Your task to perform on an android device: open app "Chime – Mobile Banking" Image 0: 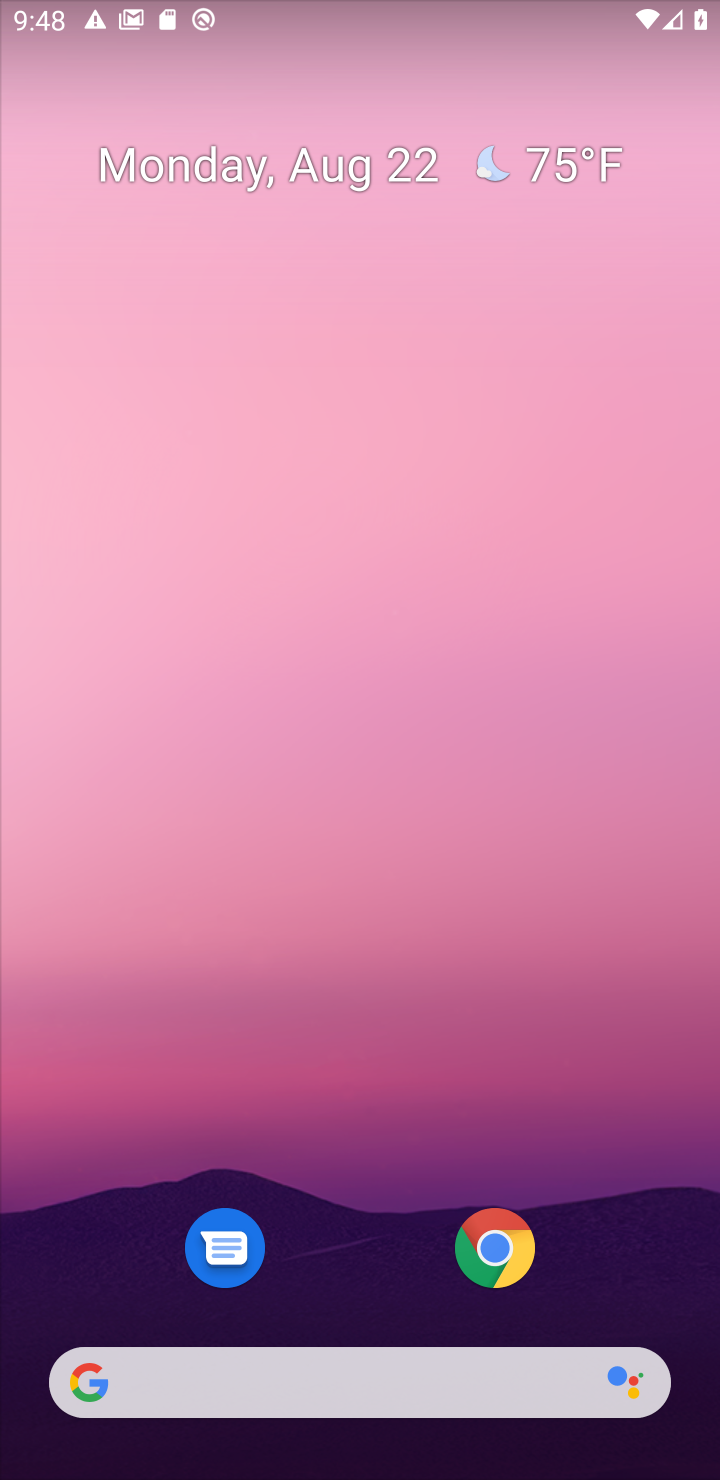
Step 0: drag from (350, 1232) to (337, 4)
Your task to perform on an android device: open app "Chime – Mobile Banking" Image 1: 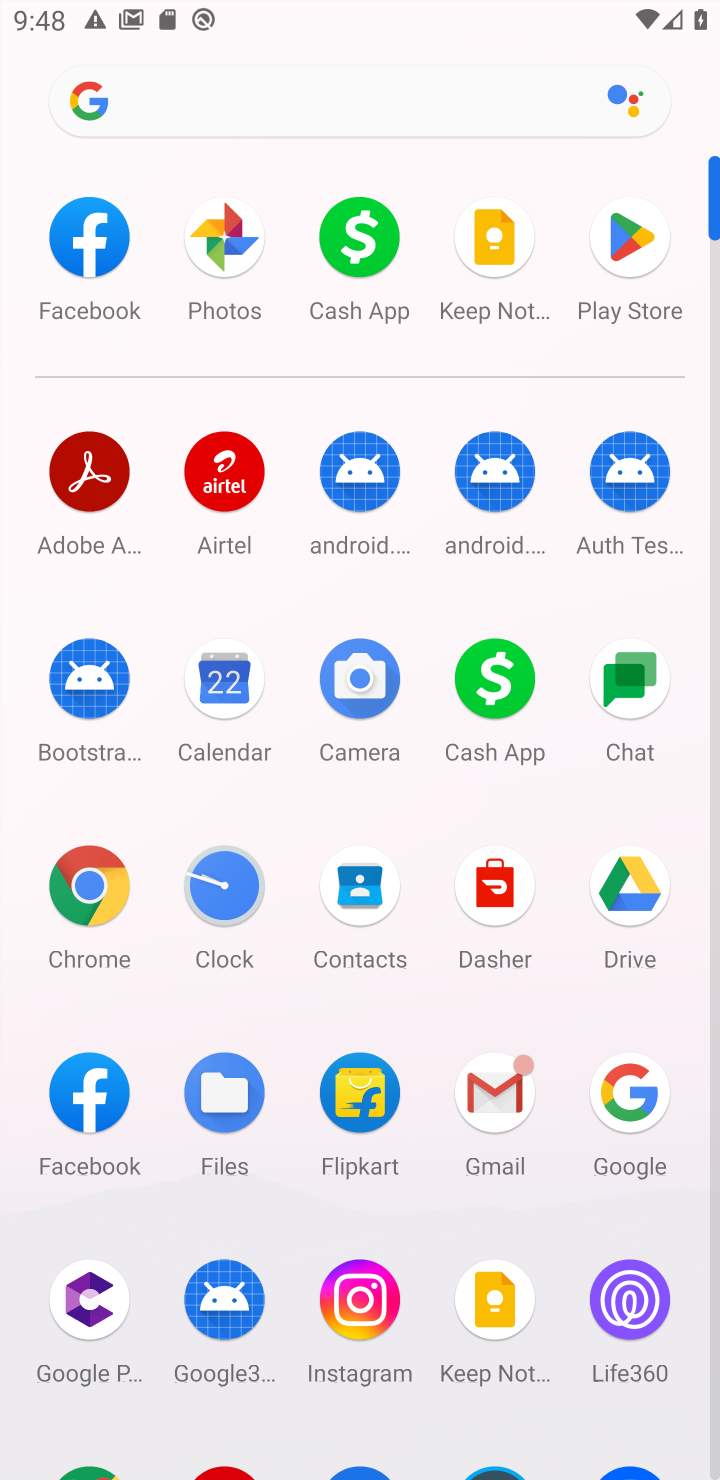
Step 1: click (633, 247)
Your task to perform on an android device: open app "Chime – Mobile Banking" Image 2: 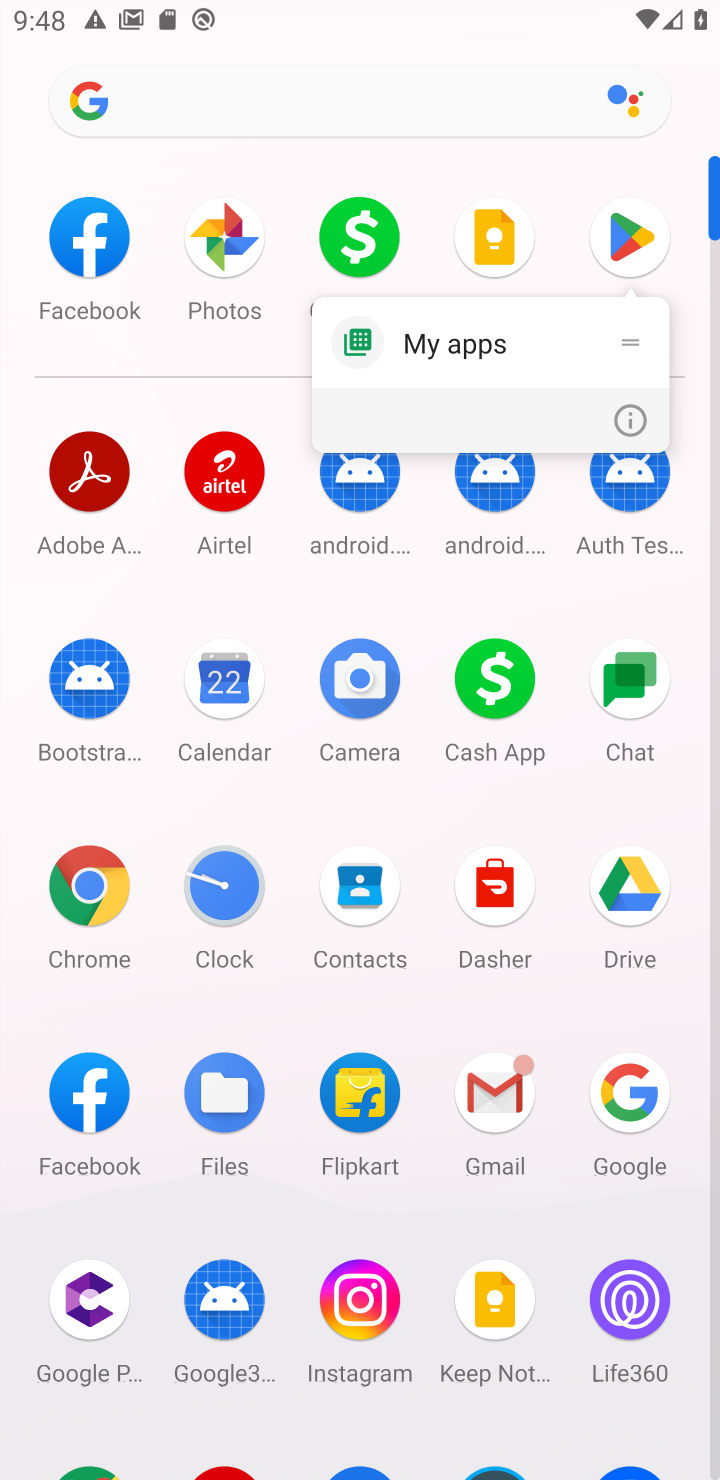
Step 2: click (624, 221)
Your task to perform on an android device: open app "Chime – Mobile Banking" Image 3: 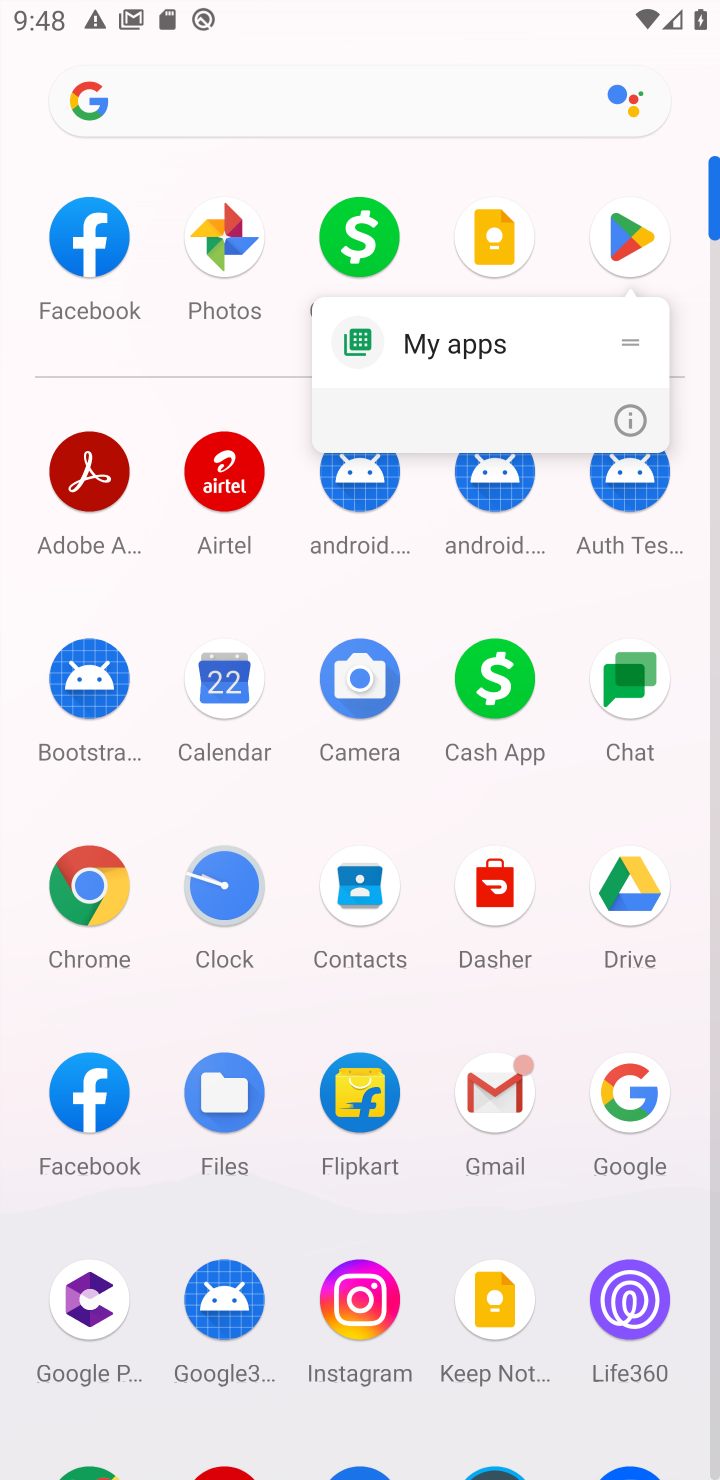
Step 3: click (624, 221)
Your task to perform on an android device: open app "Chime – Mobile Banking" Image 4: 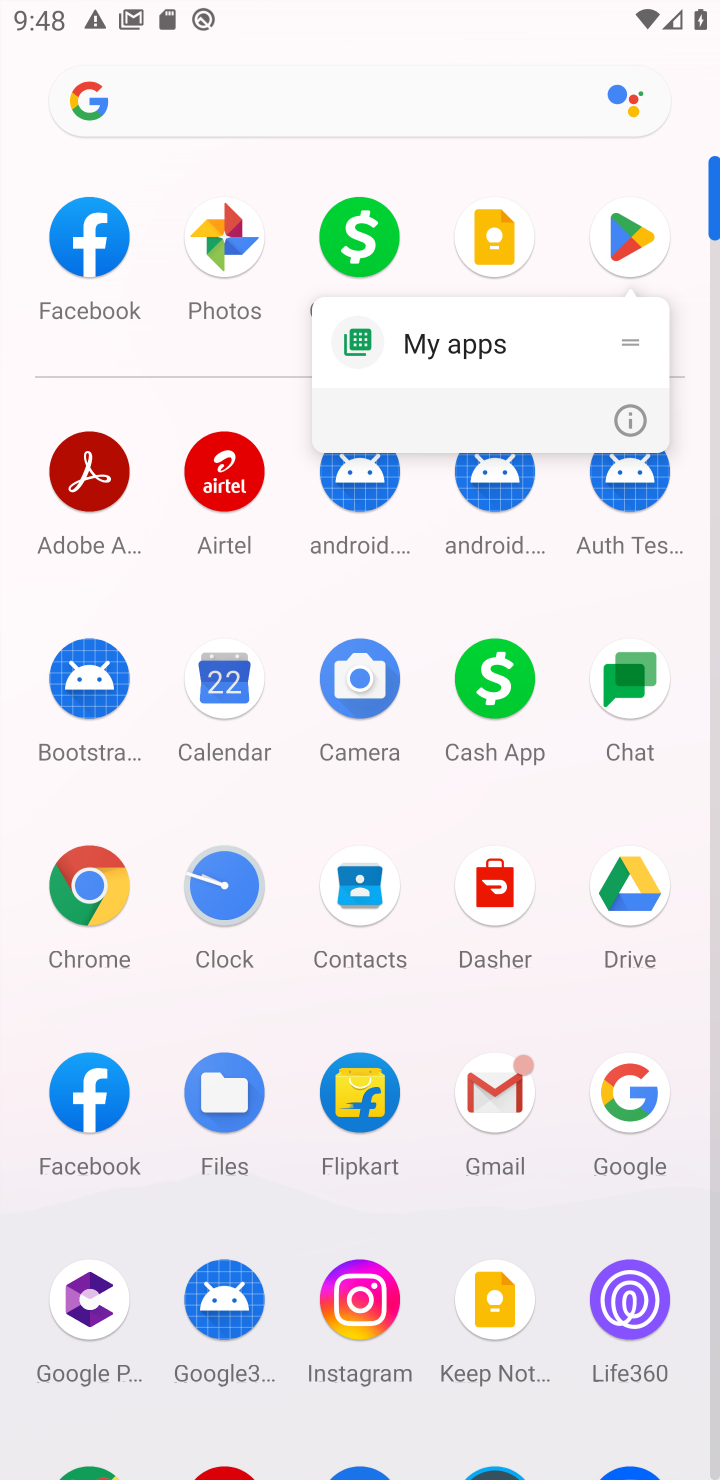
Step 4: click (622, 223)
Your task to perform on an android device: open app "Chime – Mobile Banking" Image 5: 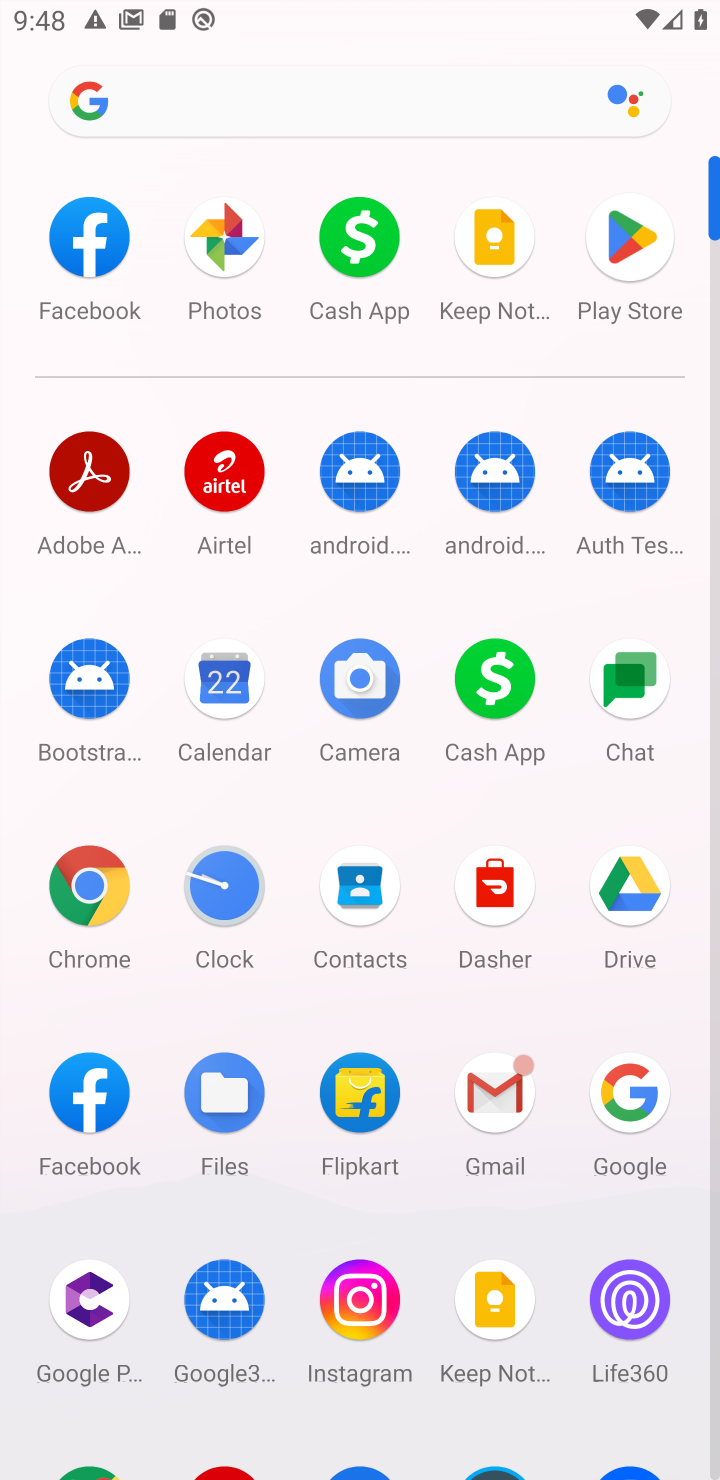
Step 5: click (621, 227)
Your task to perform on an android device: open app "Chime – Mobile Banking" Image 6: 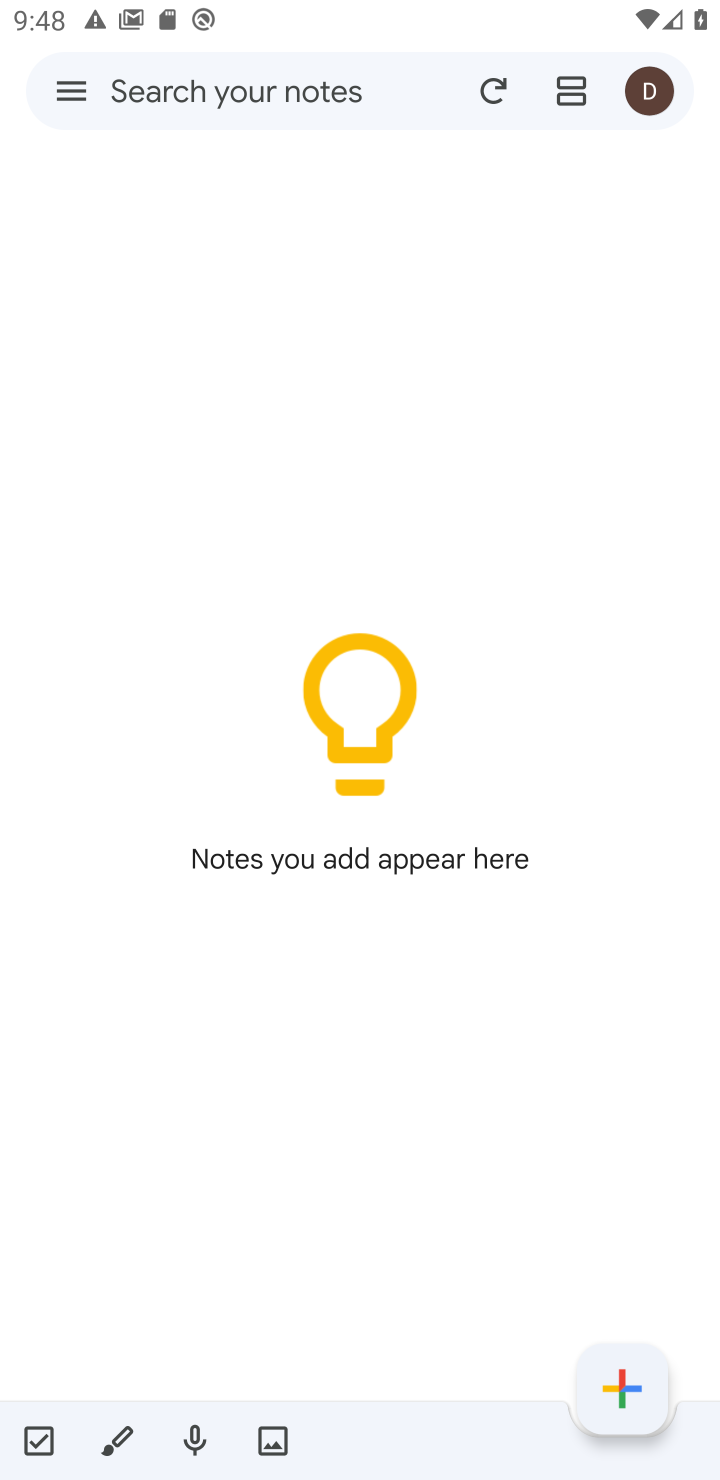
Step 6: press home button
Your task to perform on an android device: open app "Chime – Mobile Banking" Image 7: 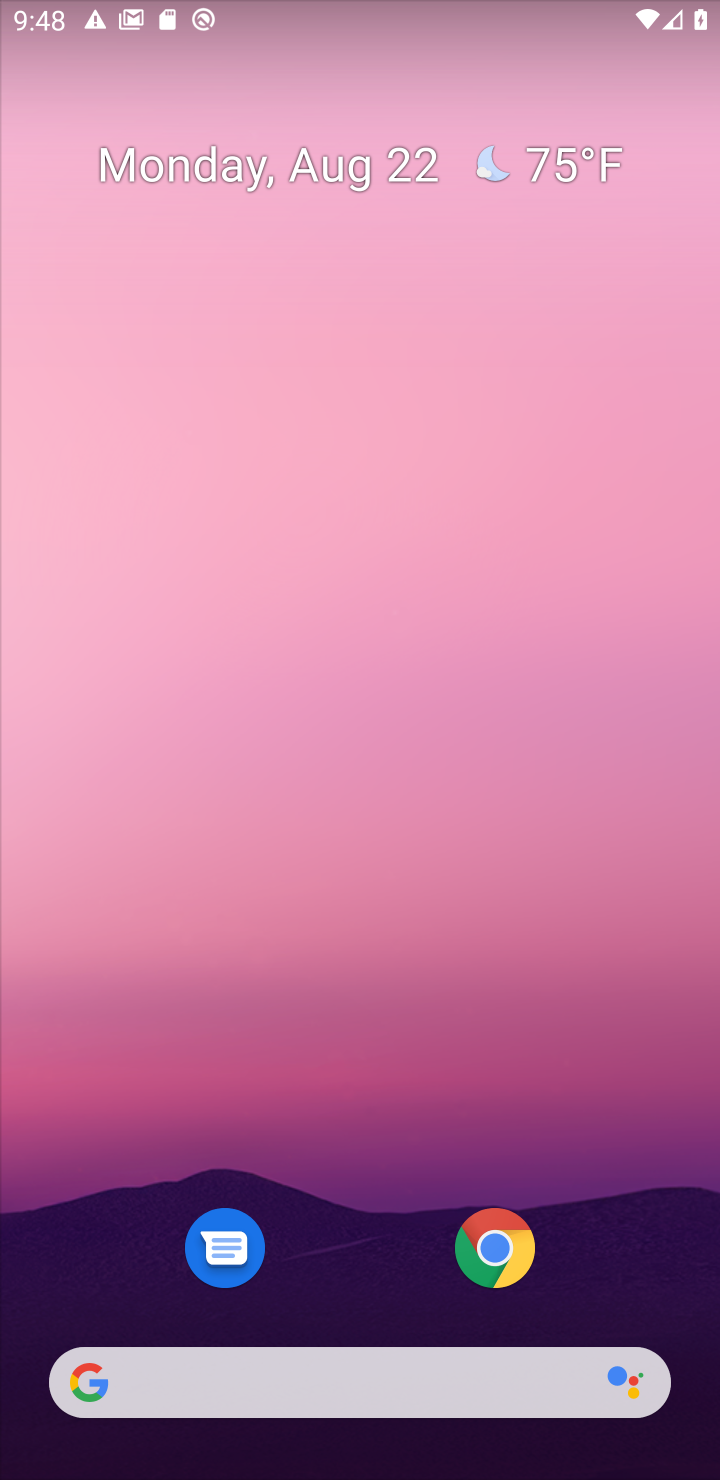
Step 7: drag from (370, 1056) to (370, 122)
Your task to perform on an android device: open app "Chime – Mobile Banking" Image 8: 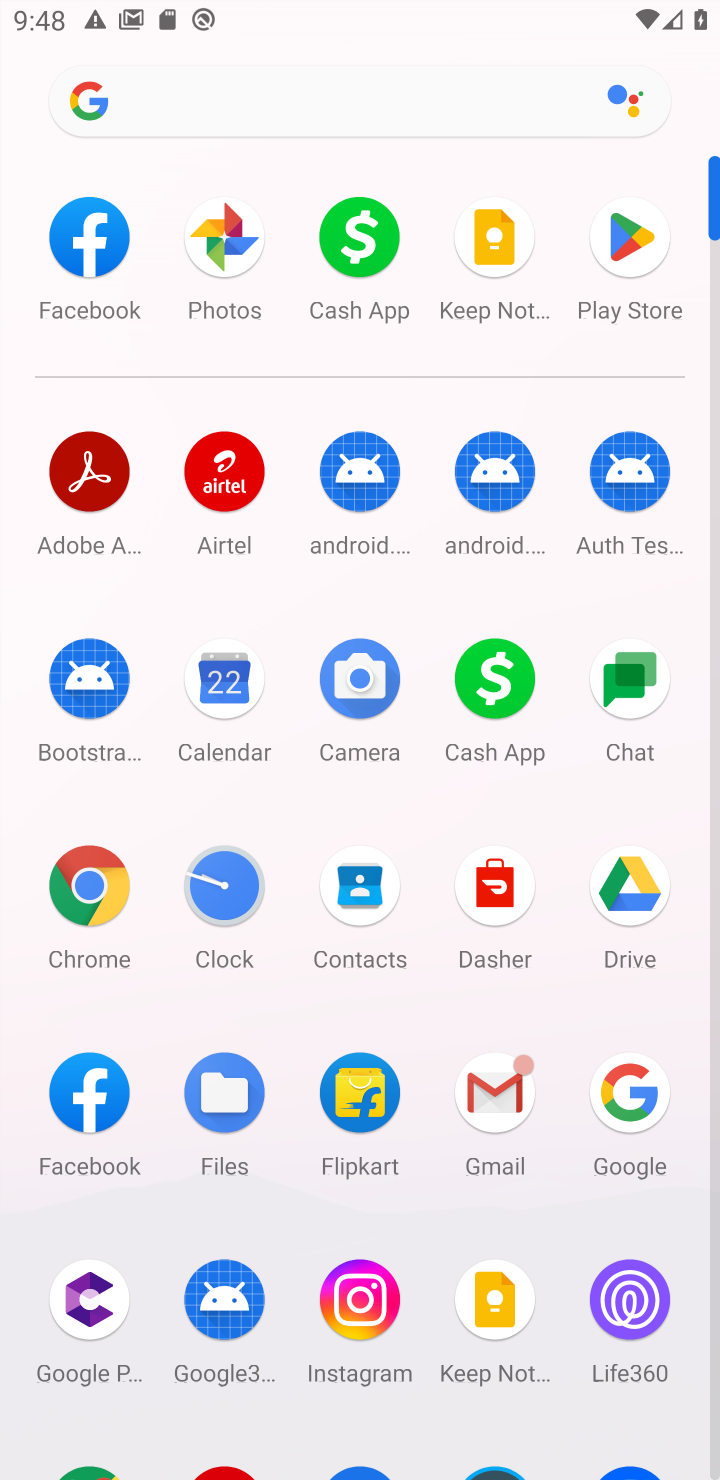
Step 8: click (627, 242)
Your task to perform on an android device: open app "Chime – Mobile Banking" Image 9: 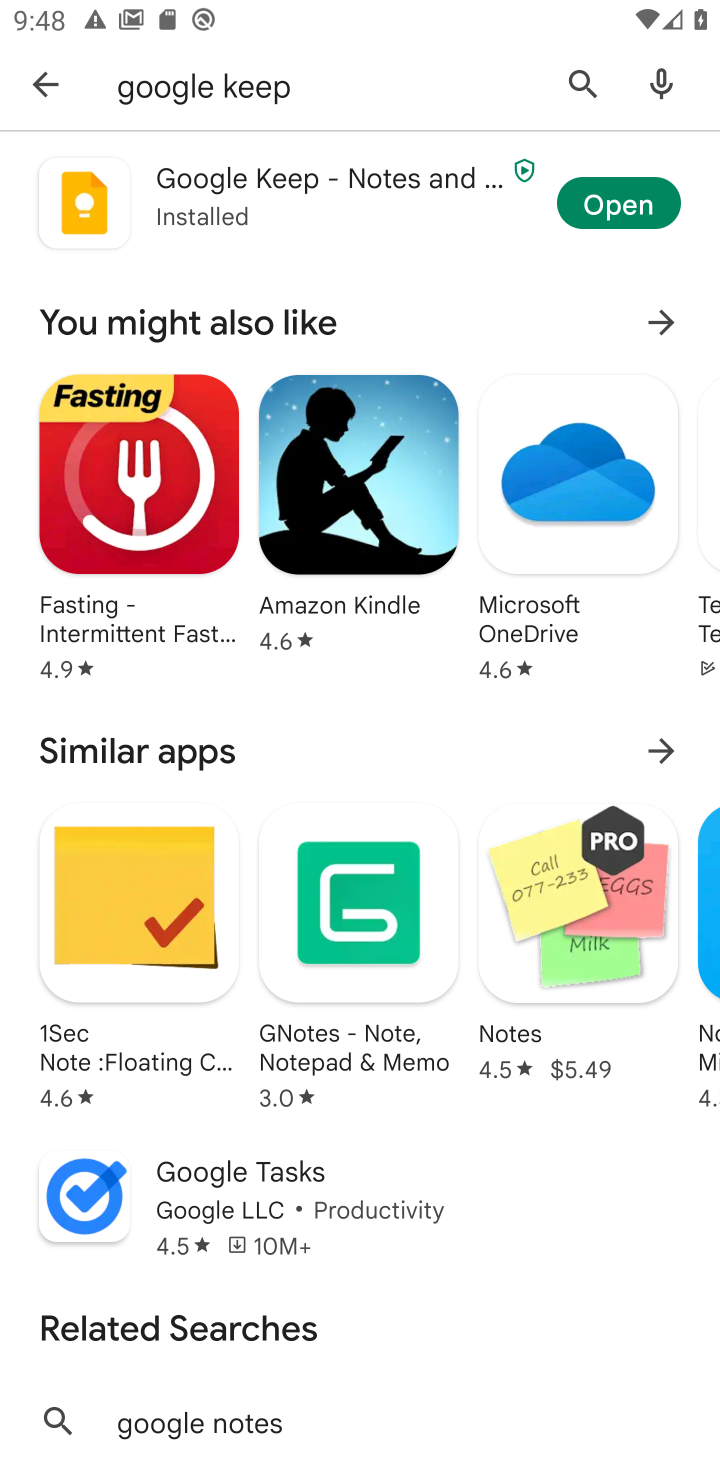
Step 9: click (570, 74)
Your task to perform on an android device: open app "Chime – Mobile Banking" Image 10: 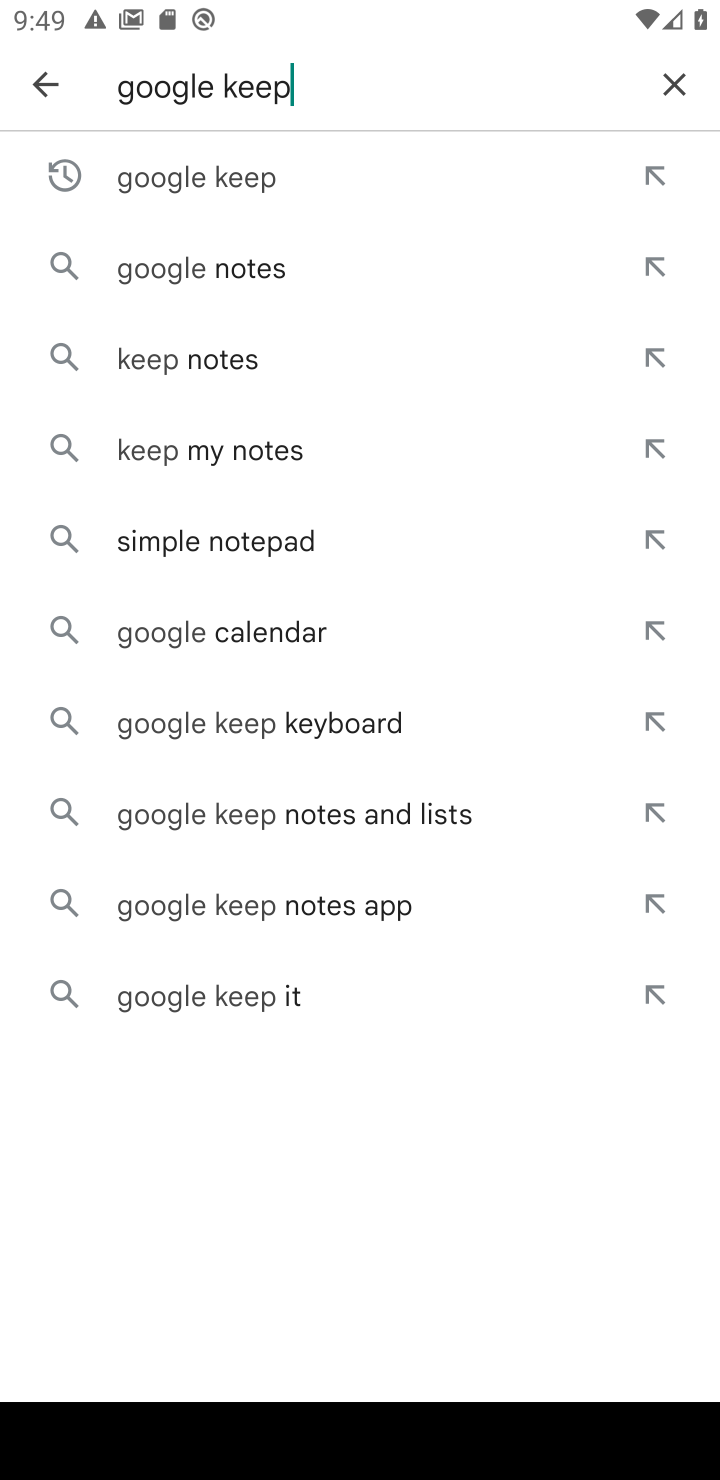
Step 10: click (670, 80)
Your task to perform on an android device: open app "Chime – Mobile Banking" Image 11: 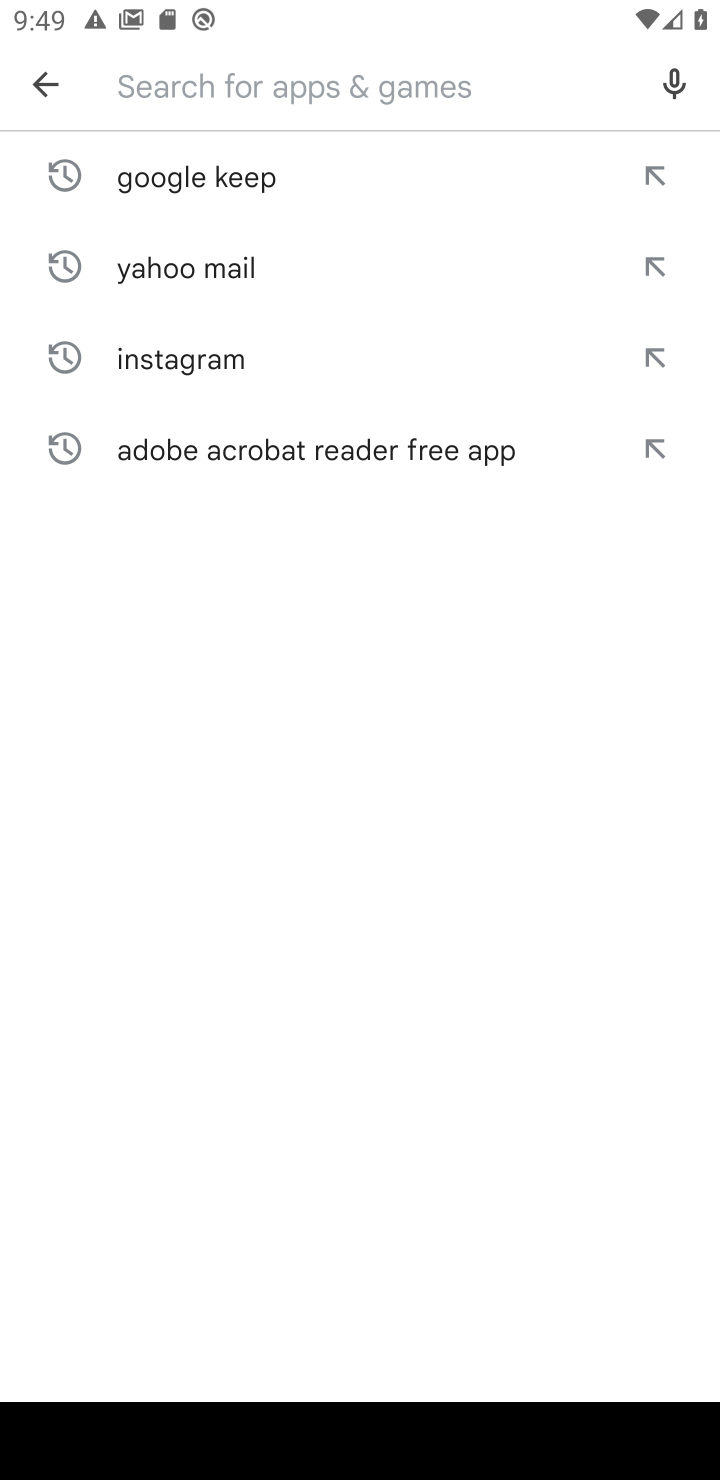
Step 11: type "Chime – Mobile Banking"
Your task to perform on an android device: open app "Chime – Mobile Banking" Image 12: 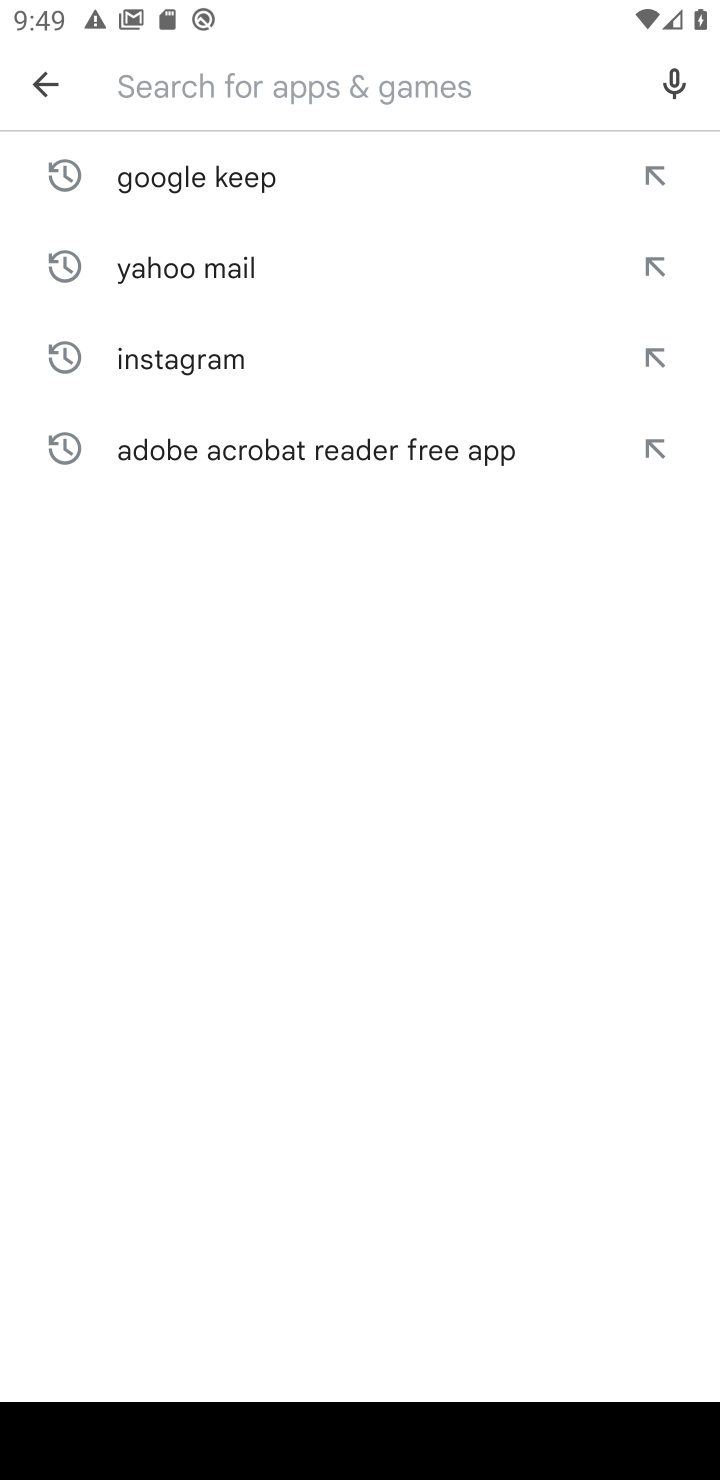
Step 12: type "Chime - Mobile Banking"
Your task to perform on an android device: open app "Chime – Mobile Banking" Image 13: 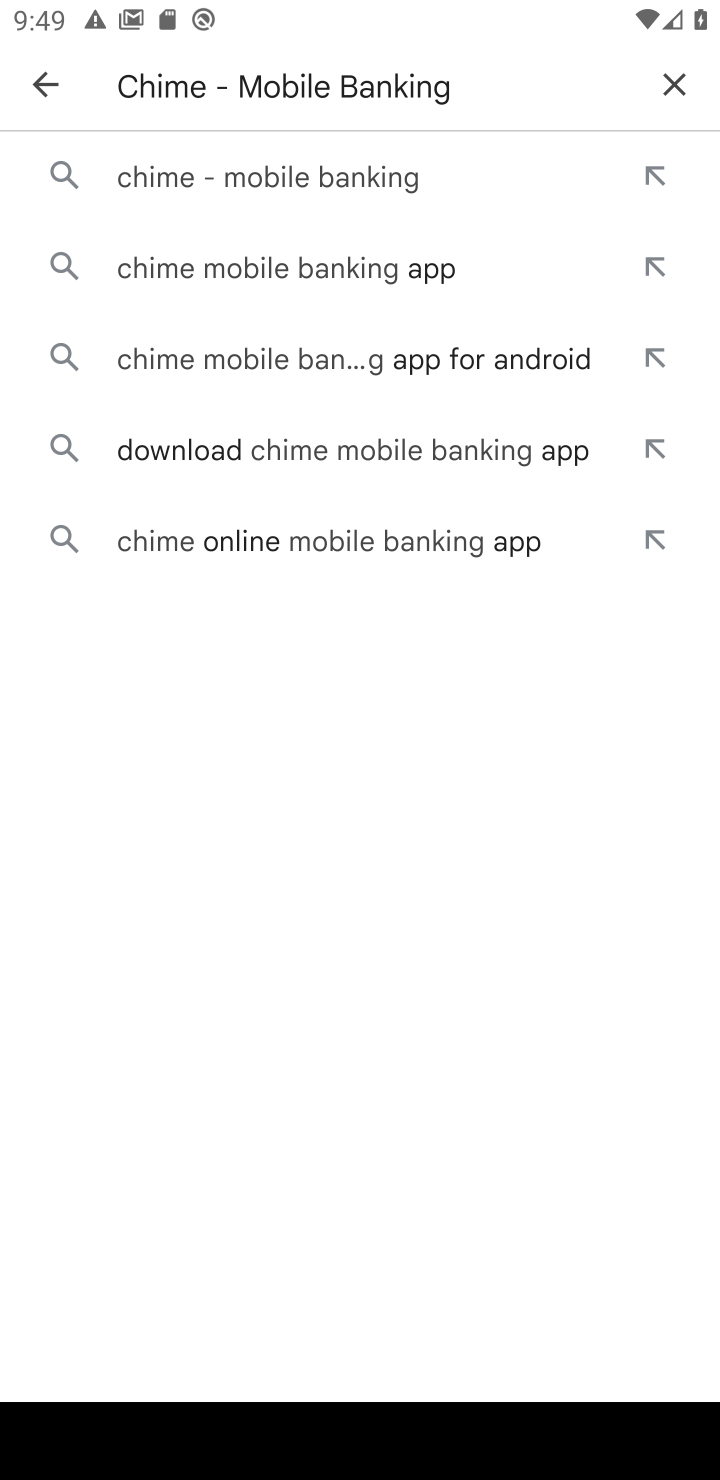
Step 13: click (233, 174)
Your task to perform on an android device: open app "Chime – Mobile Banking" Image 14: 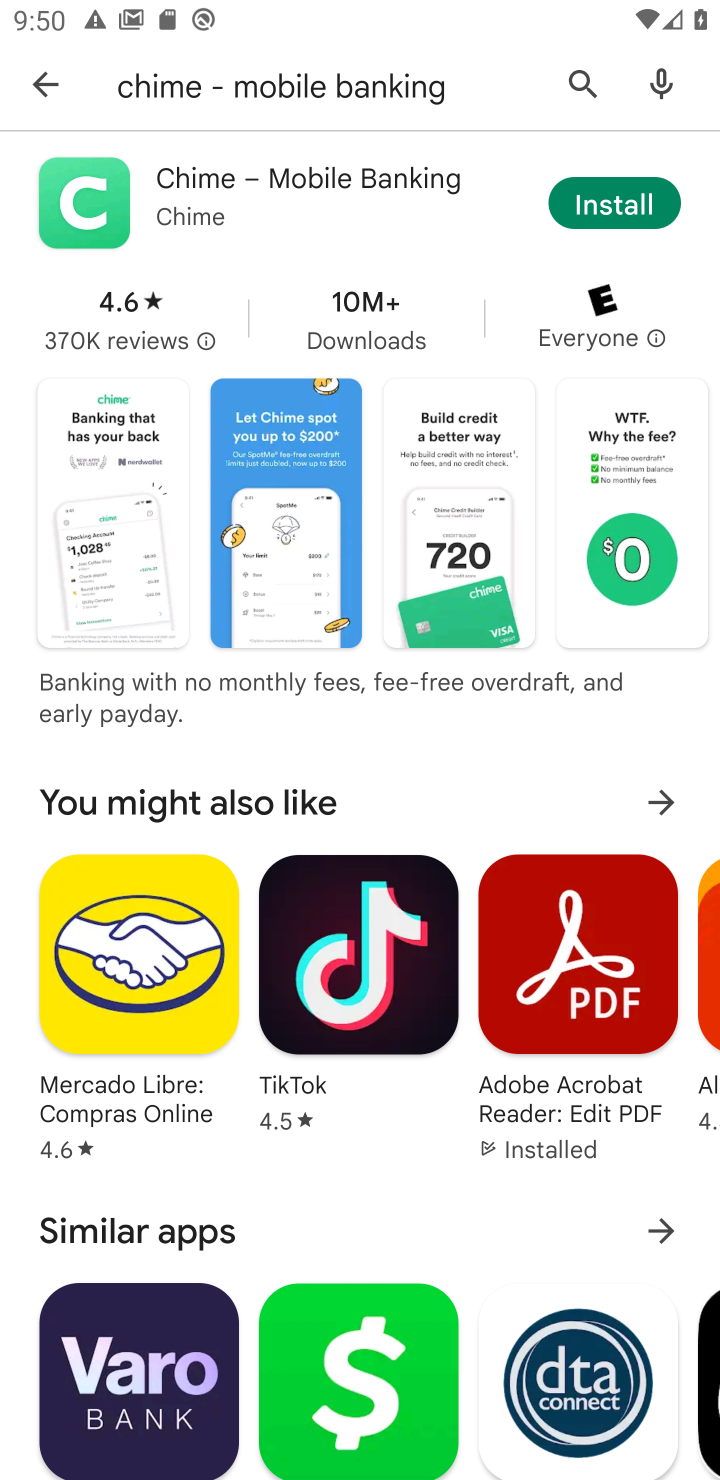
Step 14: task complete